Your task to perform on an android device: open a new tab in the chrome app Image 0: 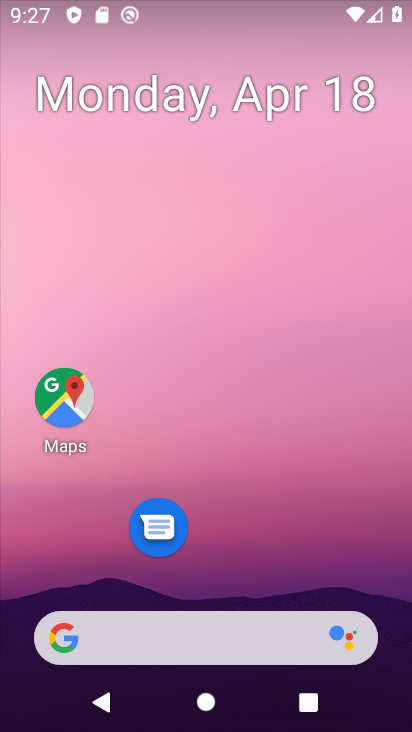
Step 0: click (251, 583)
Your task to perform on an android device: open a new tab in the chrome app Image 1: 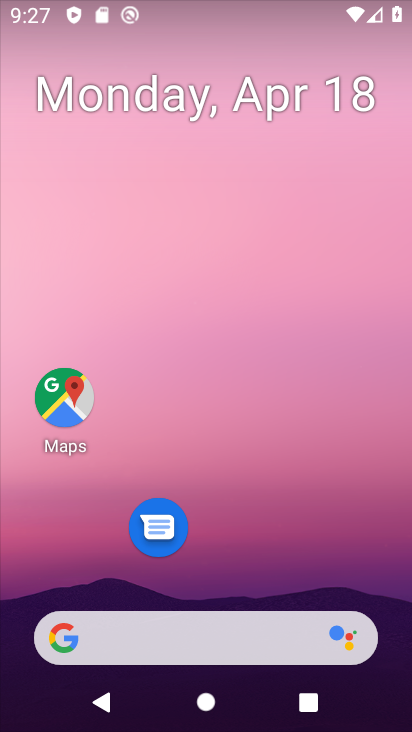
Step 1: drag from (251, 583) to (174, 40)
Your task to perform on an android device: open a new tab in the chrome app Image 2: 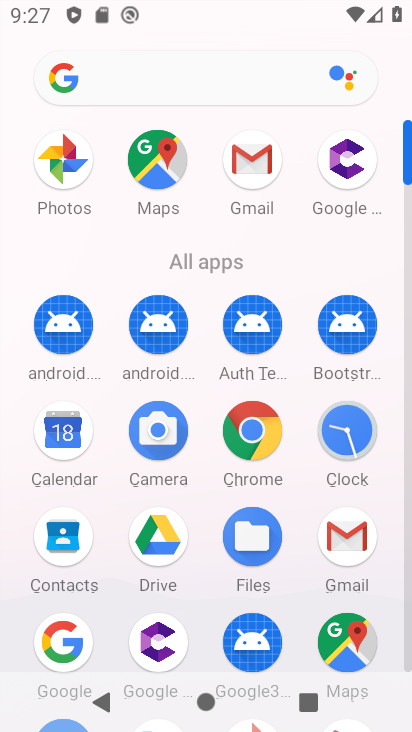
Step 2: click (264, 446)
Your task to perform on an android device: open a new tab in the chrome app Image 3: 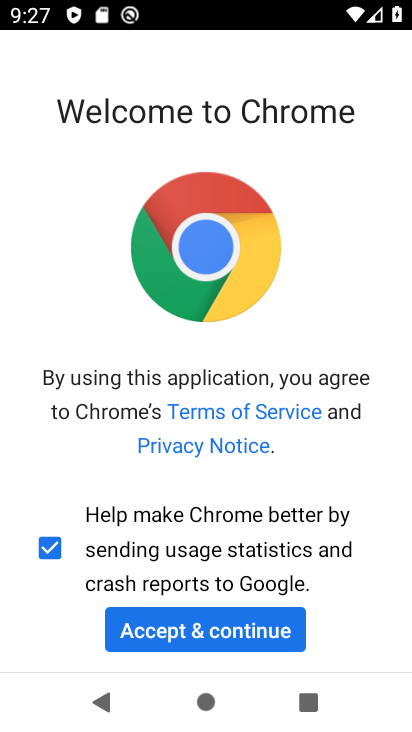
Step 3: click (163, 618)
Your task to perform on an android device: open a new tab in the chrome app Image 4: 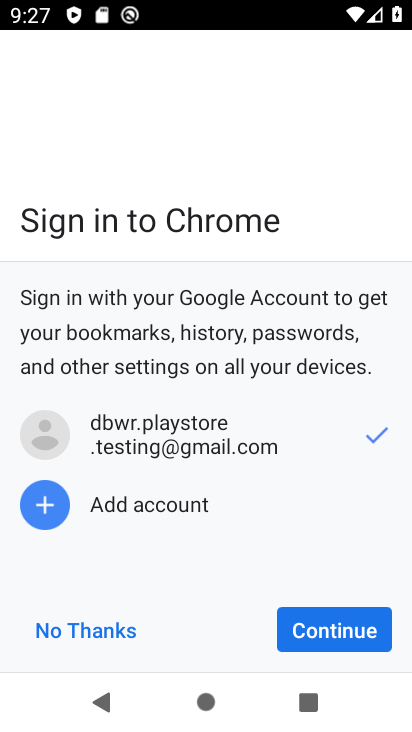
Step 4: click (313, 613)
Your task to perform on an android device: open a new tab in the chrome app Image 5: 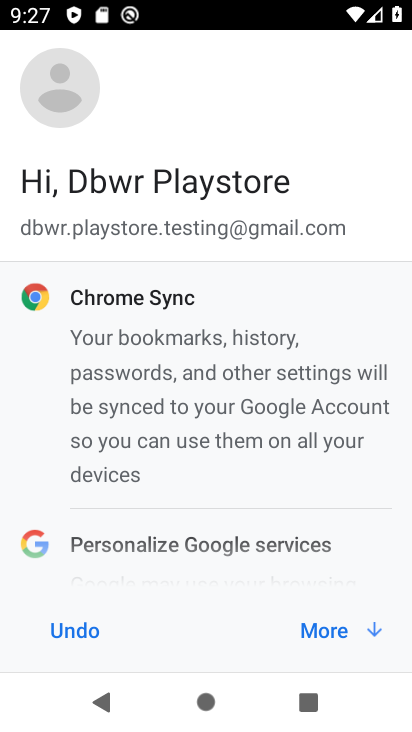
Step 5: click (313, 613)
Your task to perform on an android device: open a new tab in the chrome app Image 6: 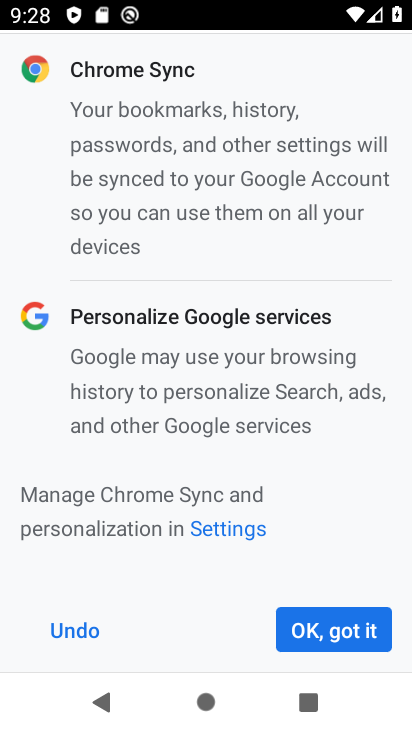
Step 6: click (313, 613)
Your task to perform on an android device: open a new tab in the chrome app Image 7: 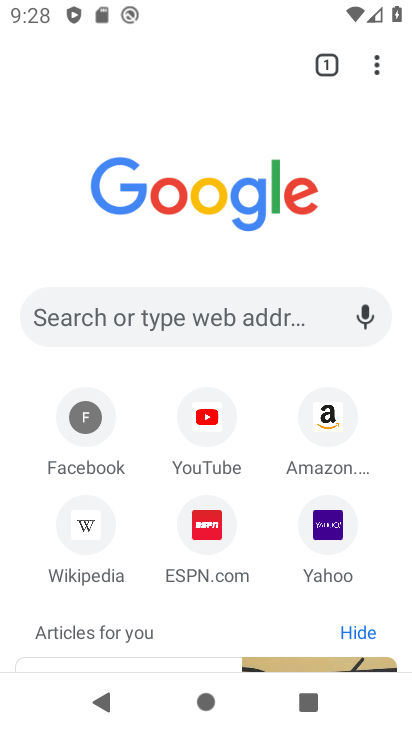
Step 7: click (374, 73)
Your task to perform on an android device: open a new tab in the chrome app Image 8: 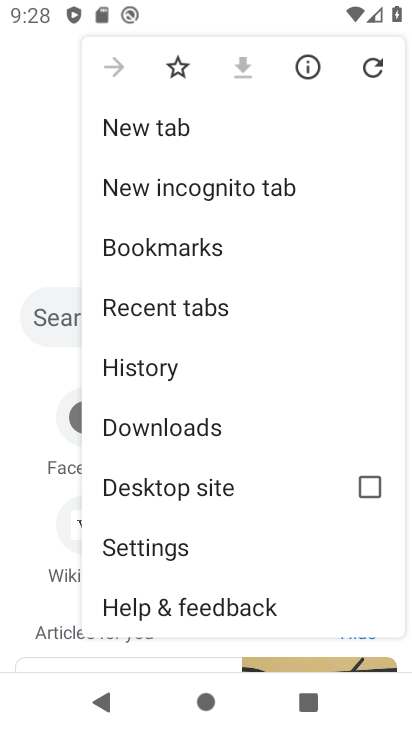
Step 8: click (202, 123)
Your task to perform on an android device: open a new tab in the chrome app Image 9: 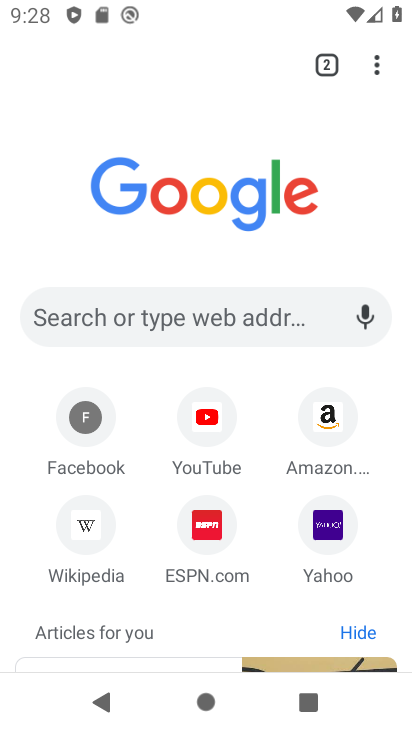
Step 9: task complete